Your task to perform on an android device: change the clock display to digital Image 0: 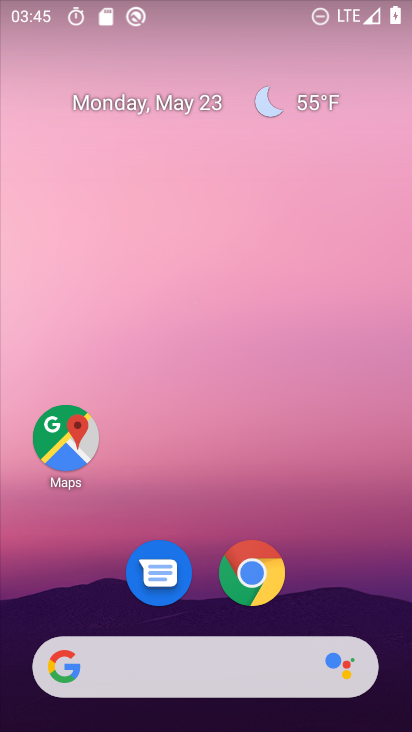
Step 0: drag from (346, 589) to (275, 51)
Your task to perform on an android device: change the clock display to digital Image 1: 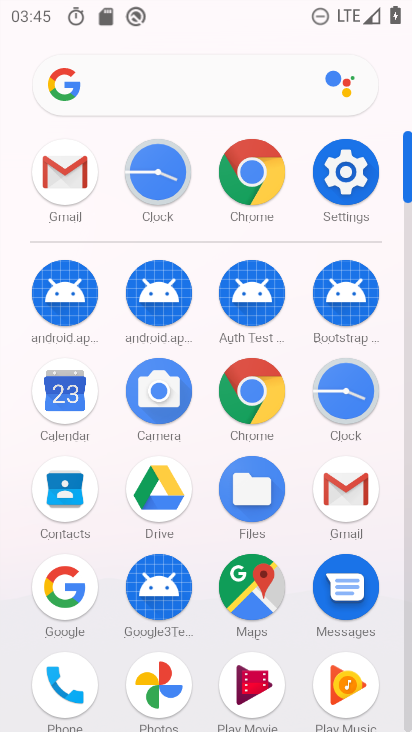
Step 1: click (166, 175)
Your task to perform on an android device: change the clock display to digital Image 2: 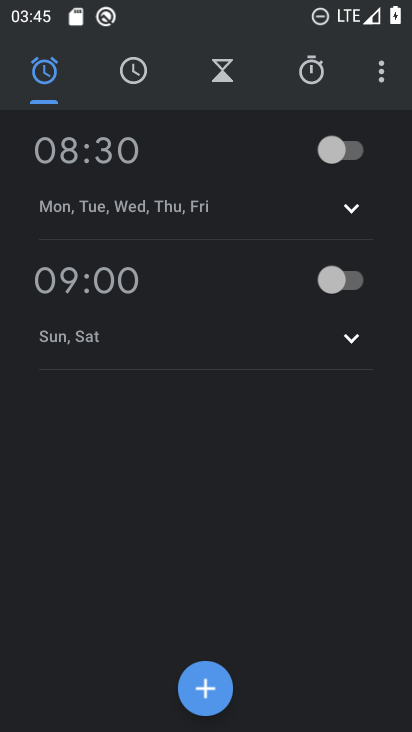
Step 2: click (379, 78)
Your task to perform on an android device: change the clock display to digital Image 3: 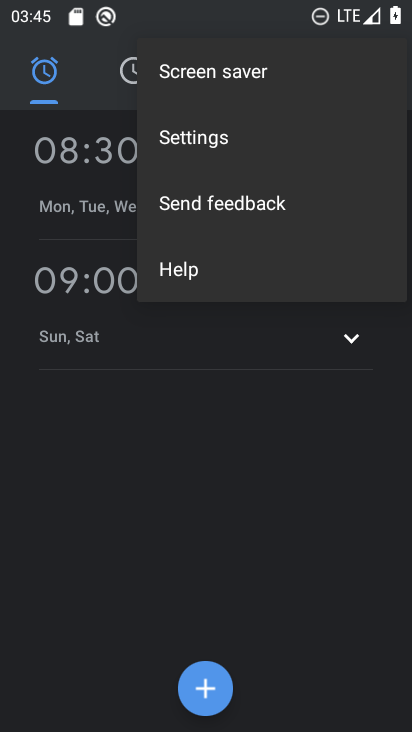
Step 3: click (203, 140)
Your task to perform on an android device: change the clock display to digital Image 4: 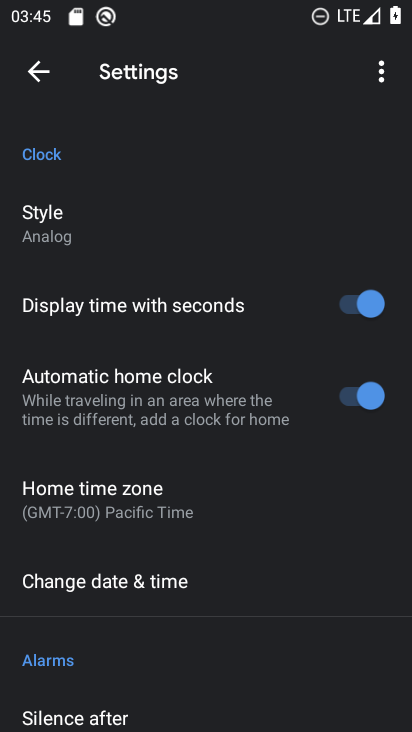
Step 4: click (61, 231)
Your task to perform on an android device: change the clock display to digital Image 5: 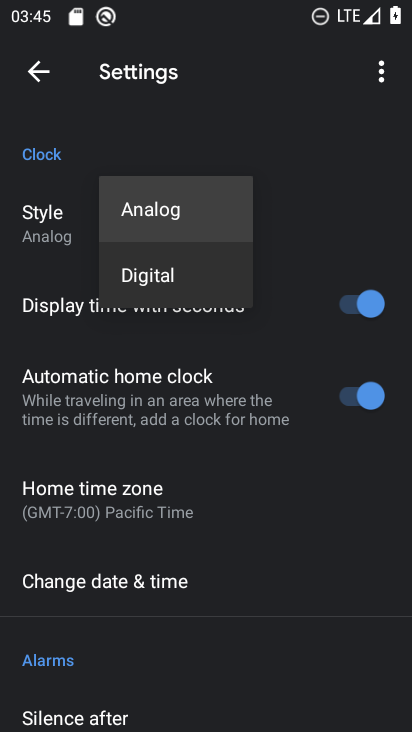
Step 5: click (150, 269)
Your task to perform on an android device: change the clock display to digital Image 6: 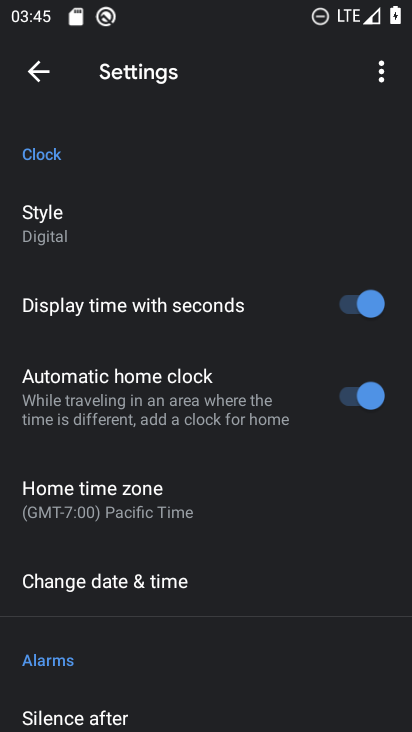
Step 6: task complete